Your task to perform on an android device: turn on showing notifications on the lock screen Image 0: 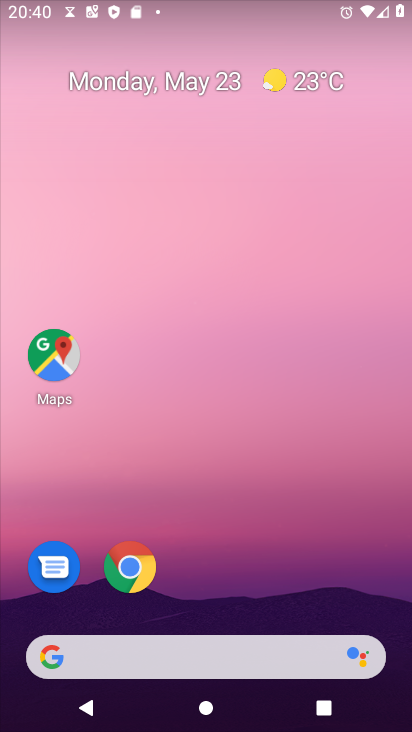
Step 0: drag from (263, 593) to (267, 128)
Your task to perform on an android device: turn on showing notifications on the lock screen Image 1: 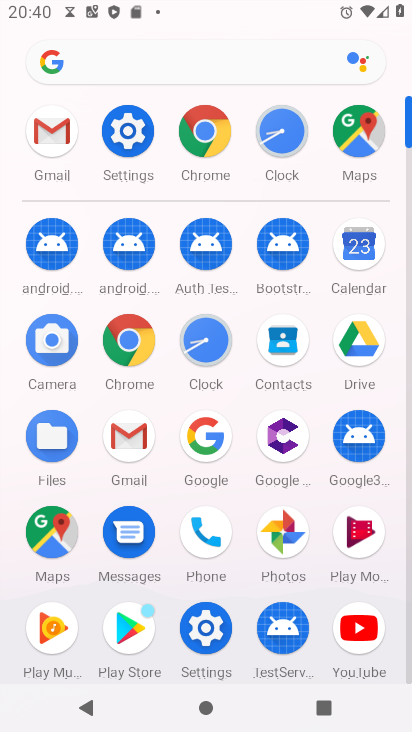
Step 1: click (196, 621)
Your task to perform on an android device: turn on showing notifications on the lock screen Image 2: 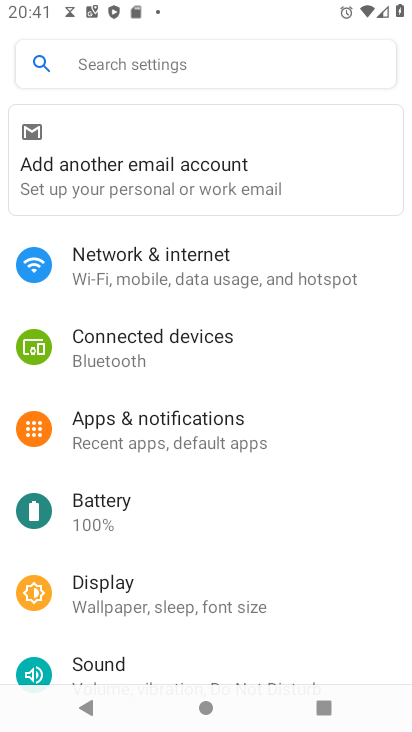
Step 2: click (155, 281)
Your task to perform on an android device: turn on showing notifications on the lock screen Image 3: 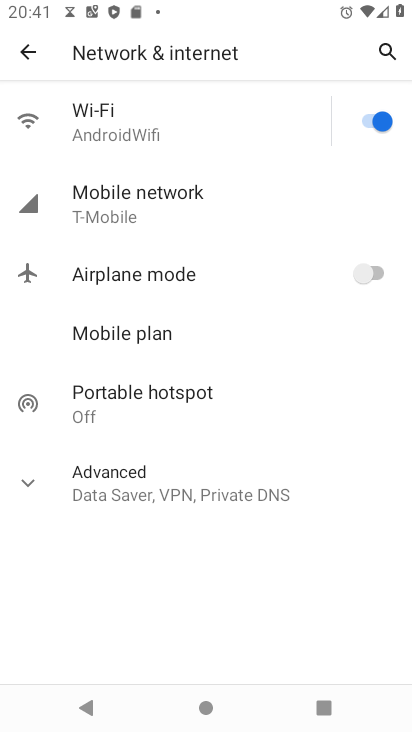
Step 3: click (37, 49)
Your task to perform on an android device: turn on showing notifications on the lock screen Image 4: 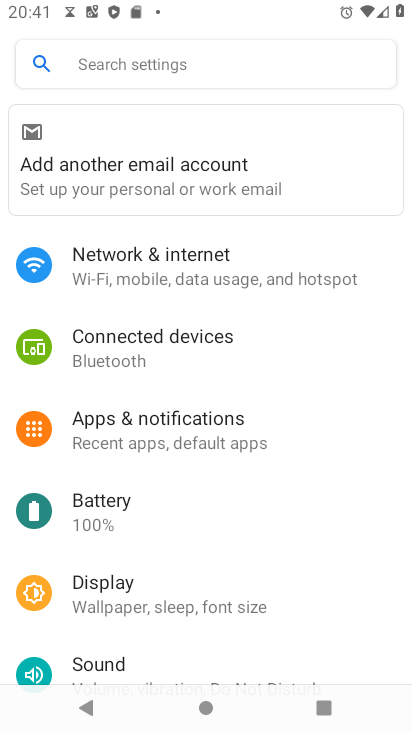
Step 4: click (193, 433)
Your task to perform on an android device: turn on showing notifications on the lock screen Image 5: 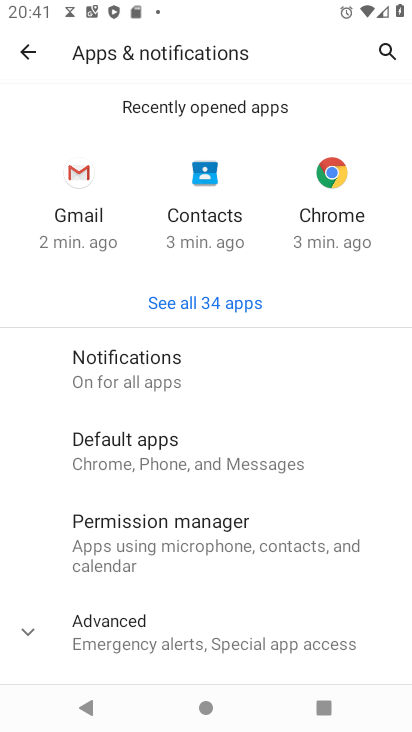
Step 5: click (163, 372)
Your task to perform on an android device: turn on showing notifications on the lock screen Image 6: 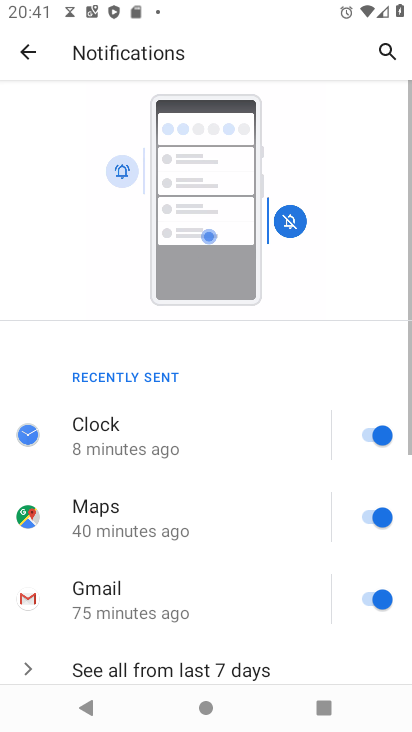
Step 6: drag from (230, 628) to (297, 86)
Your task to perform on an android device: turn on showing notifications on the lock screen Image 7: 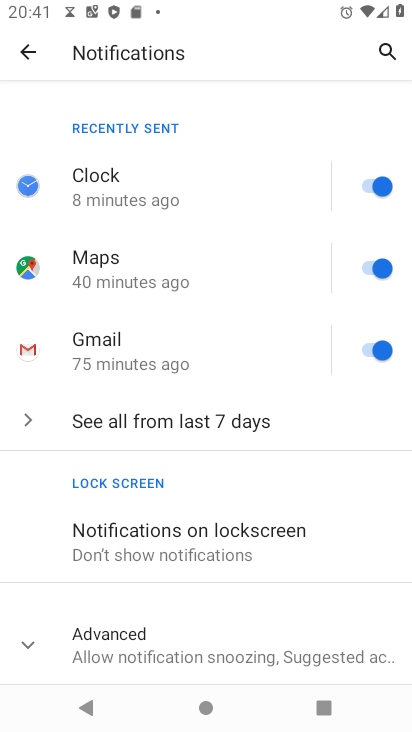
Step 7: click (166, 534)
Your task to perform on an android device: turn on showing notifications on the lock screen Image 8: 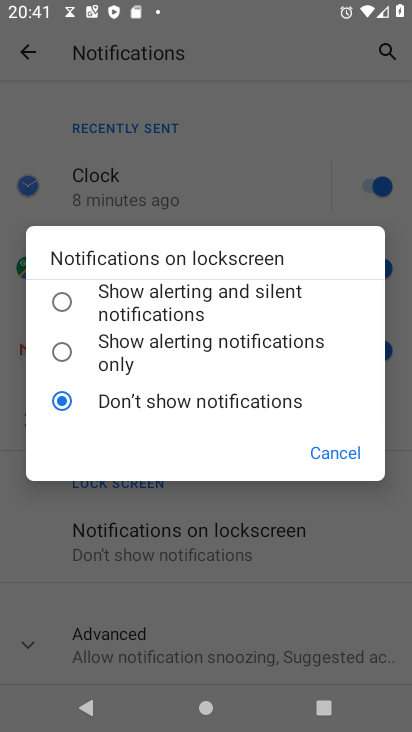
Step 8: click (111, 285)
Your task to perform on an android device: turn on showing notifications on the lock screen Image 9: 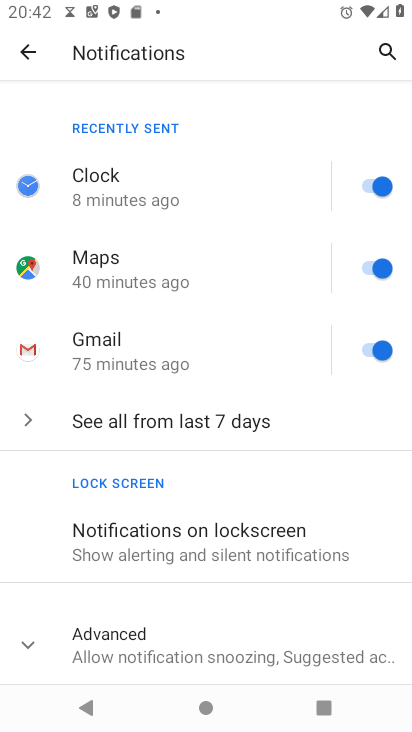
Step 9: task complete